Your task to perform on an android device: open app "Microsoft Excel" Image 0: 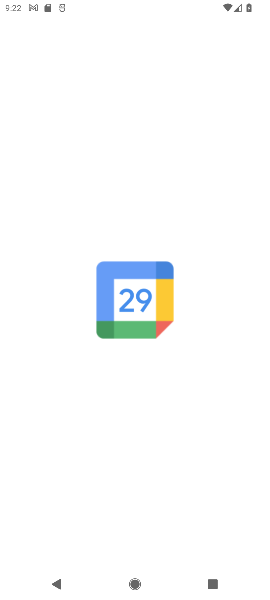
Step 0: press back button
Your task to perform on an android device: open app "Microsoft Excel" Image 1: 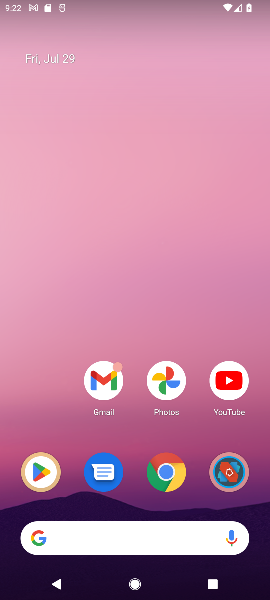
Step 1: press back button
Your task to perform on an android device: open app "Microsoft Excel" Image 2: 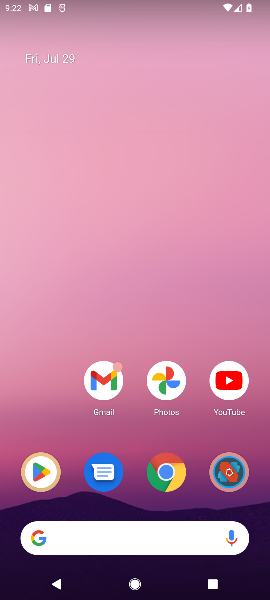
Step 2: drag from (199, 508) to (184, 235)
Your task to perform on an android device: open app "Microsoft Excel" Image 3: 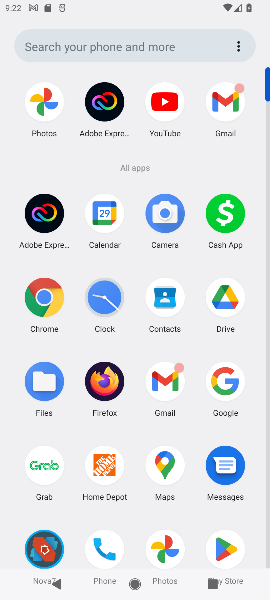
Step 3: drag from (127, 503) to (131, 246)
Your task to perform on an android device: open app "Microsoft Excel" Image 4: 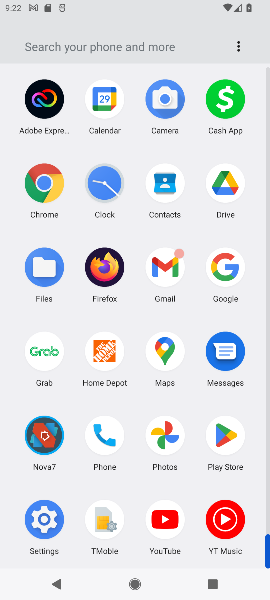
Step 4: drag from (147, 359) to (133, 262)
Your task to perform on an android device: open app "Microsoft Excel" Image 5: 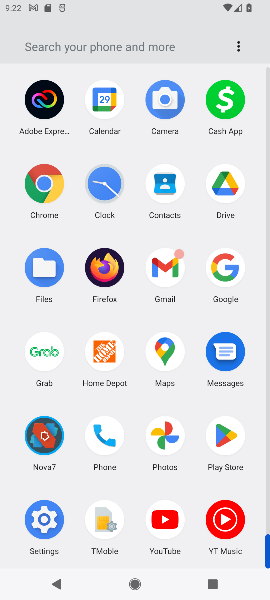
Step 5: drag from (174, 482) to (160, 302)
Your task to perform on an android device: open app "Microsoft Excel" Image 6: 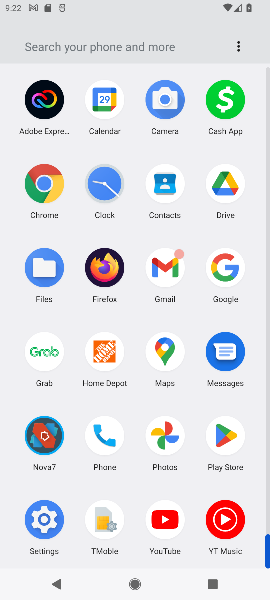
Step 6: click (225, 439)
Your task to perform on an android device: open app "Microsoft Excel" Image 7: 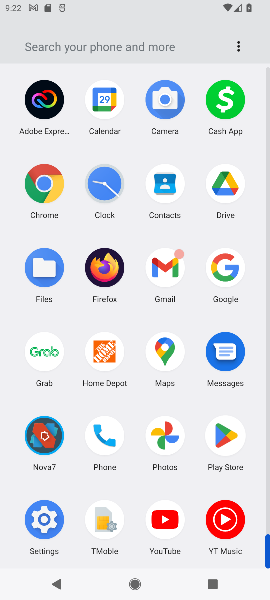
Step 7: click (225, 439)
Your task to perform on an android device: open app "Microsoft Excel" Image 8: 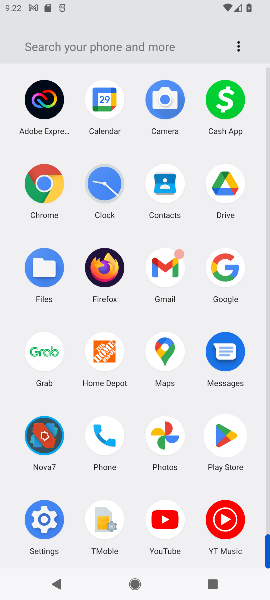
Step 8: click (225, 439)
Your task to perform on an android device: open app "Microsoft Excel" Image 9: 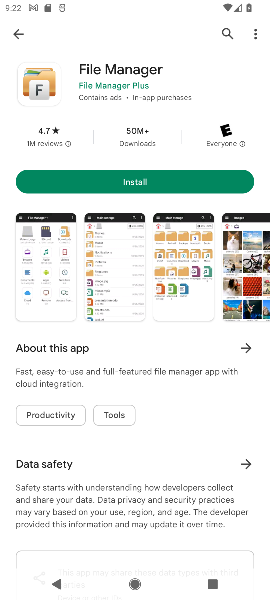
Step 9: click (22, 35)
Your task to perform on an android device: open app "Microsoft Excel" Image 10: 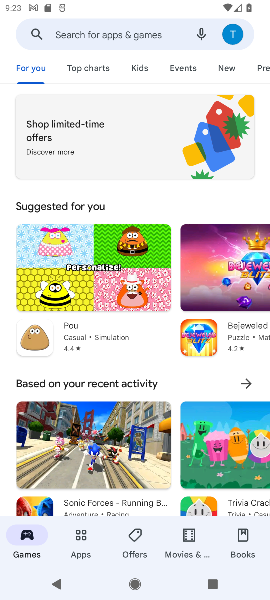
Step 10: type "microsoft excel"
Your task to perform on an android device: open app "Microsoft Excel" Image 11: 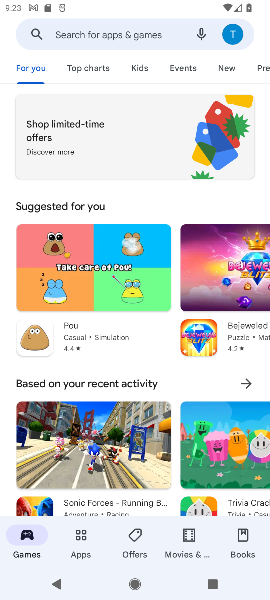
Step 11: click (75, 35)
Your task to perform on an android device: open app "Microsoft Excel" Image 12: 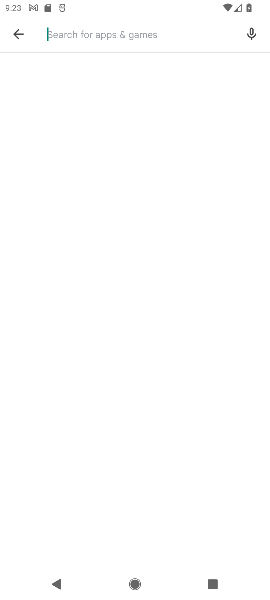
Step 12: click (75, 35)
Your task to perform on an android device: open app "Microsoft Excel" Image 13: 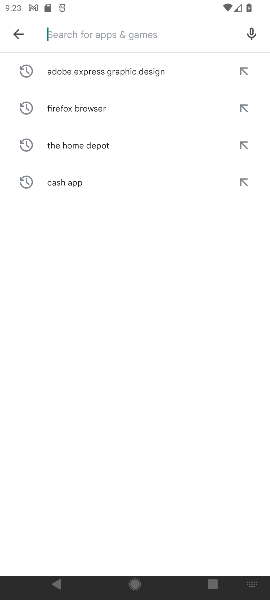
Step 13: click (75, 37)
Your task to perform on an android device: open app "Microsoft Excel" Image 14: 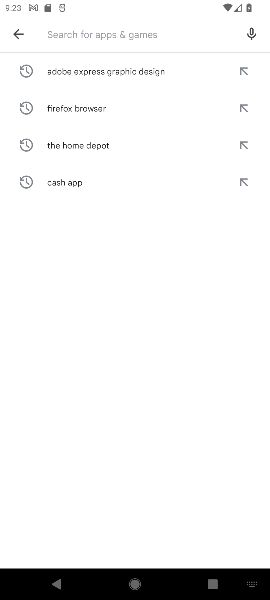
Step 14: click (75, 38)
Your task to perform on an android device: open app "Microsoft Excel" Image 15: 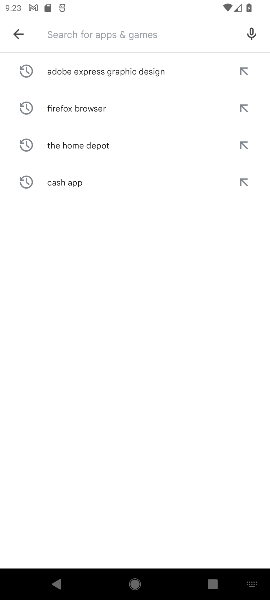
Step 15: type "microsoft excel"
Your task to perform on an android device: open app "Microsoft Excel" Image 16: 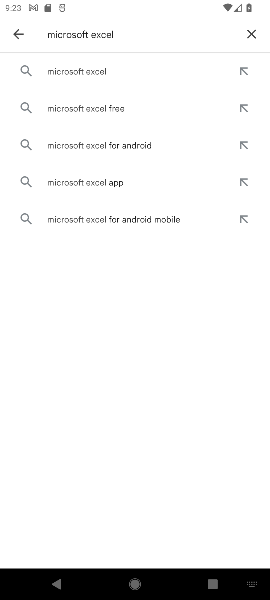
Step 16: click (57, 64)
Your task to perform on an android device: open app "Microsoft Excel" Image 17: 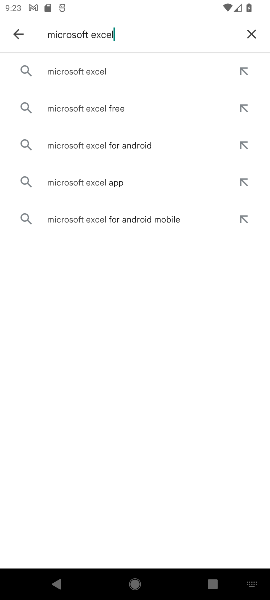
Step 17: click (54, 72)
Your task to perform on an android device: open app "Microsoft Excel" Image 18: 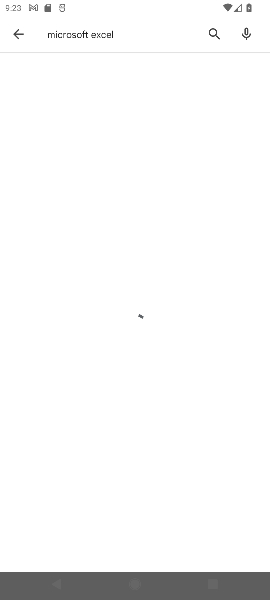
Step 18: click (56, 75)
Your task to perform on an android device: open app "Microsoft Excel" Image 19: 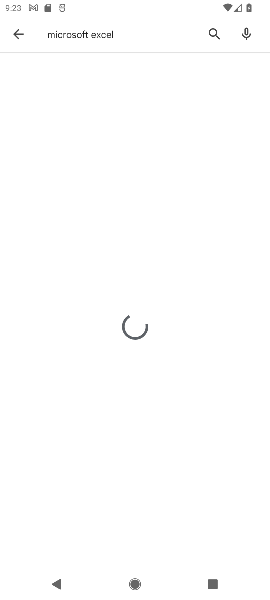
Step 19: click (58, 78)
Your task to perform on an android device: open app "Microsoft Excel" Image 20: 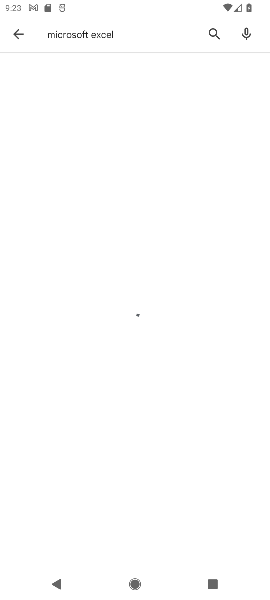
Step 20: click (59, 78)
Your task to perform on an android device: open app "Microsoft Excel" Image 21: 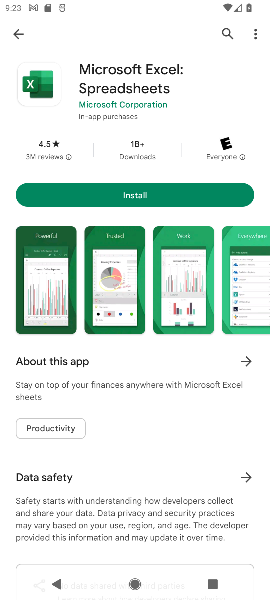
Step 21: click (134, 202)
Your task to perform on an android device: open app "Microsoft Excel" Image 22: 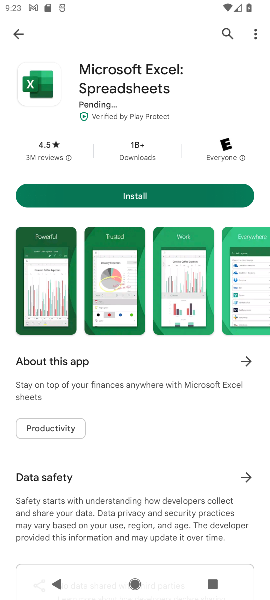
Step 22: click (131, 196)
Your task to perform on an android device: open app "Microsoft Excel" Image 23: 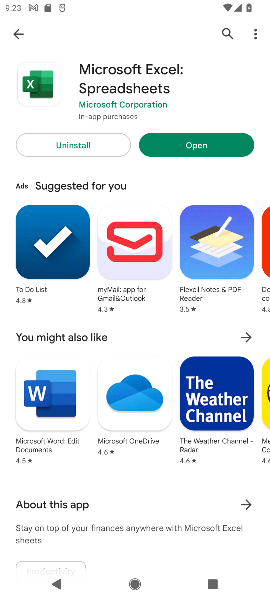
Step 23: click (192, 145)
Your task to perform on an android device: open app "Microsoft Excel" Image 24: 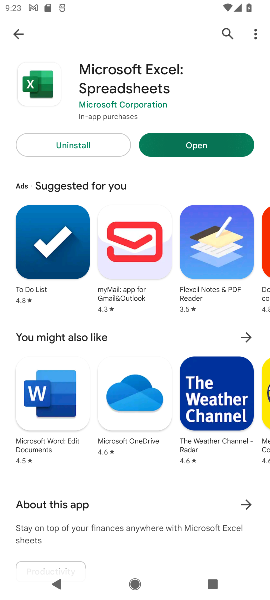
Step 24: click (192, 145)
Your task to perform on an android device: open app "Microsoft Excel" Image 25: 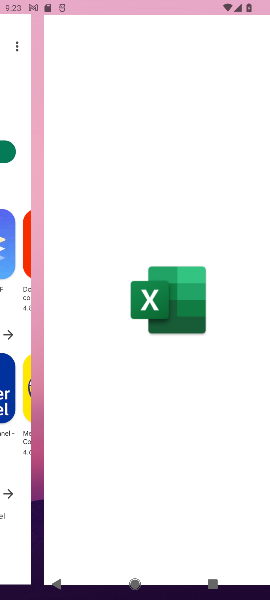
Step 25: click (192, 145)
Your task to perform on an android device: open app "Microsoft Excel" Image 26: 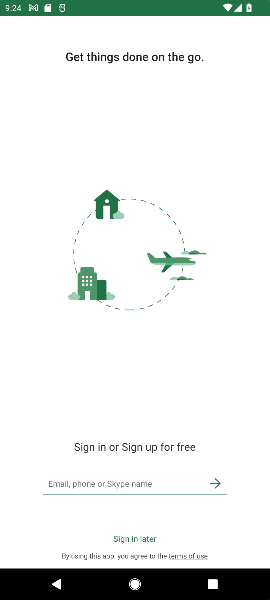
Step 26: task complete